Your task to perform on an android device: toggle wifi Image 0: 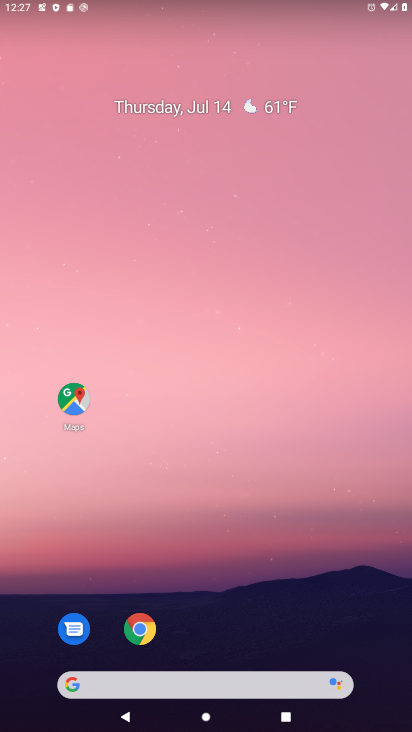
Step 0: drag from (269, 592) to (178, 231)
Your task to perform on an android device: toggle wifi Image 1: 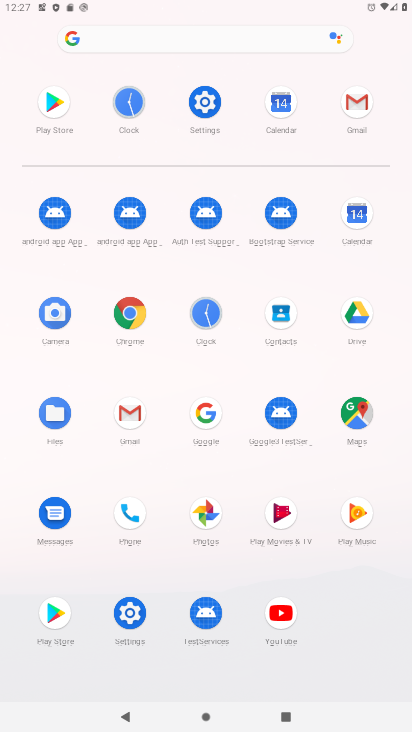
Step 1: click (209, 110)
Your task to perform on an android device: toggle wifi Image 2: 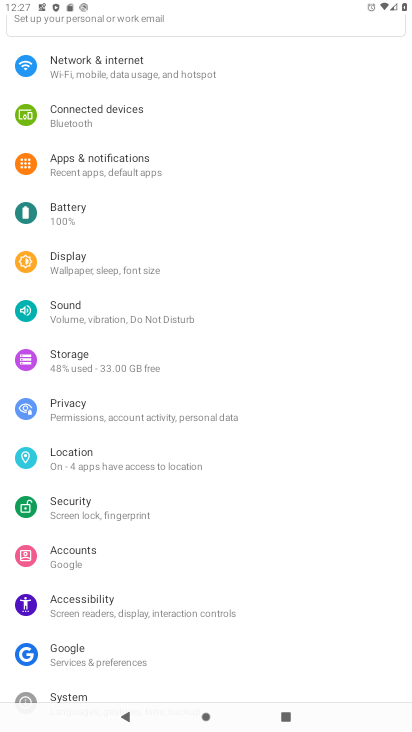
Step 2: click (97, 63)
Your task to perform on an android device: toggle wifi Image 3: 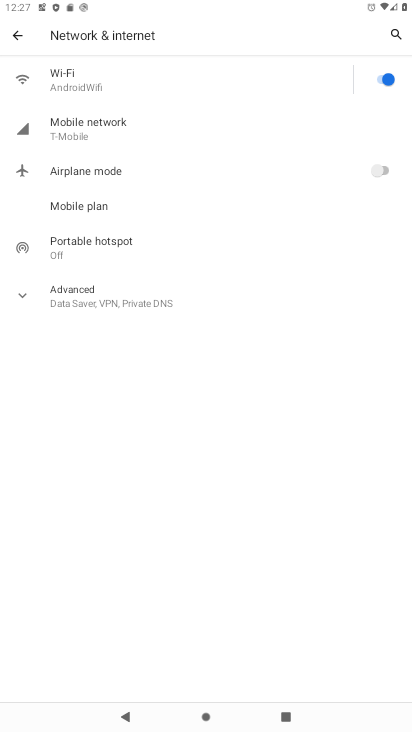
Step 3: click (386, 78)
Your task to perform on an android device: toggle wifi Image 4: 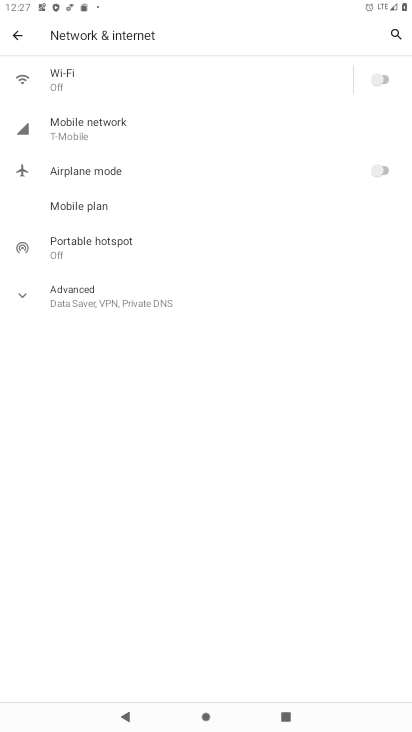
Step 4: task complete